Your task to perform on an android device: stop showing notifications on the lock screen Image 0: 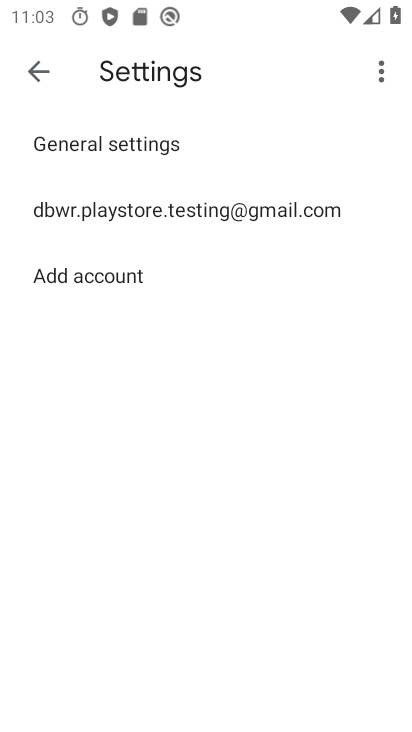
Step 0: press home button
Your task to perform on an android device: stop showing notifications on the lock screen Image 1: 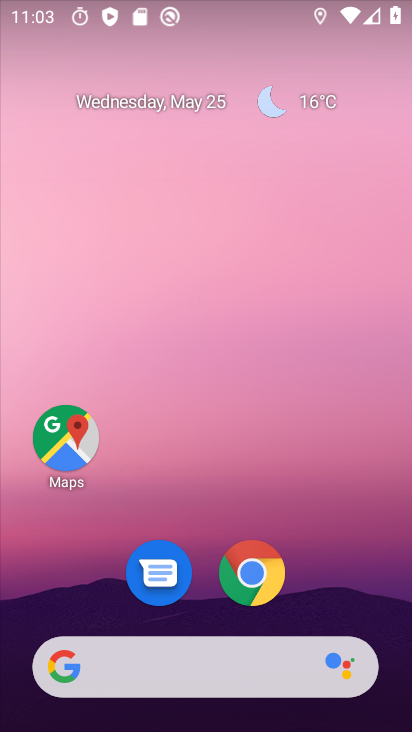
Step 1: drag from (358, 618) to (353, 16)
Your task to perform on an android device: stop showing notifications on the lock screen Image 2: 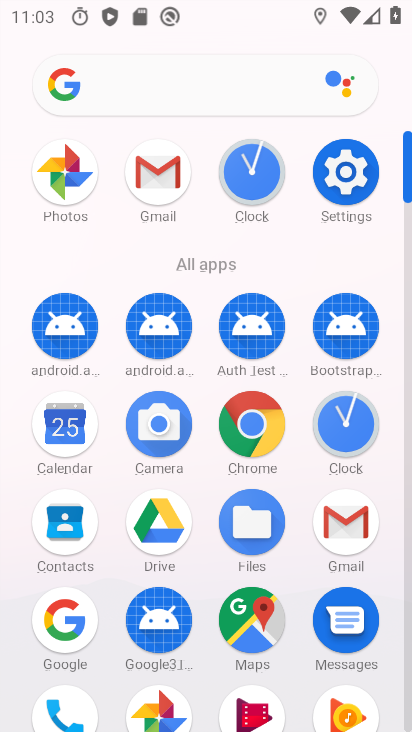
Step 2: click (345, 177)
Your task to perform on an android device: stop showing notifications on the lock screen Image 3: 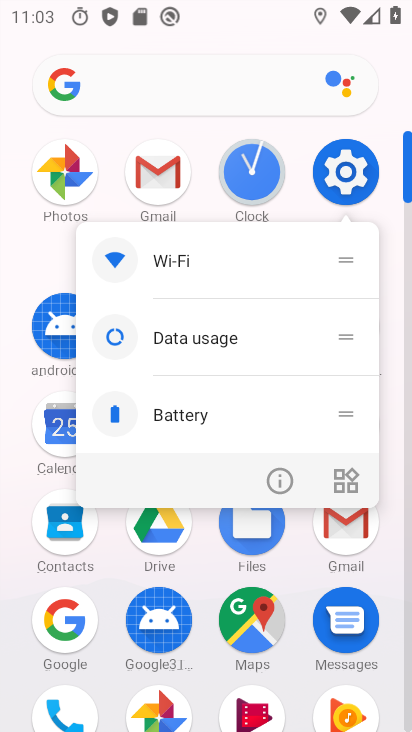
Step 3: click (345, 177)
Your task to perform on an android device: stop showing notifications on the lock screen Image 4: 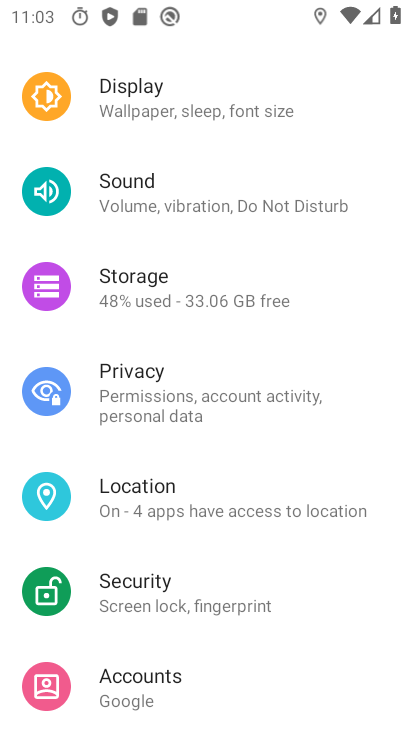
Step 4: drag from (327, 176) to (337, 595)
Your task to perform on an android device: stop showing notifications on the lock screen Image 5: 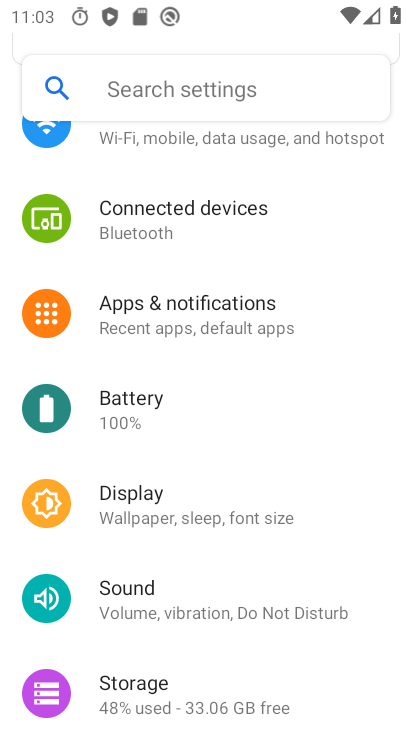
Step 5: click (185, 314)
Your task to perform on an android device: stop showing notifications on the lock screen Image 6: 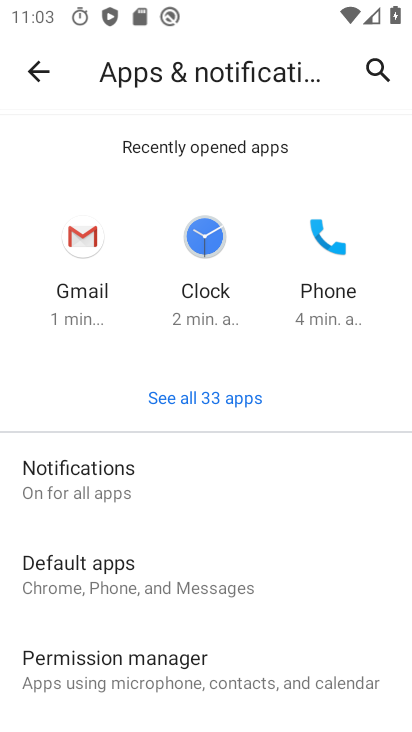
Step 6: click (82, 481)
Your task to perform on an android device: stop showing notifications on the lock screen Image 7: 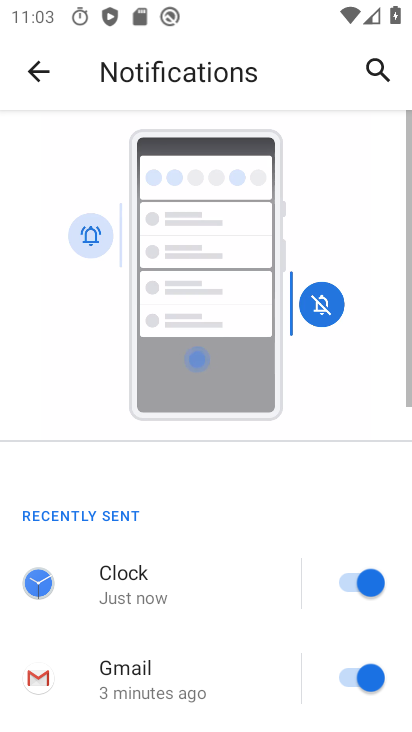
Step 7: drag from (216, 576) to (172, 125)
Your task to perform on an android device: stop showing notifications on the lock screen Image 8: 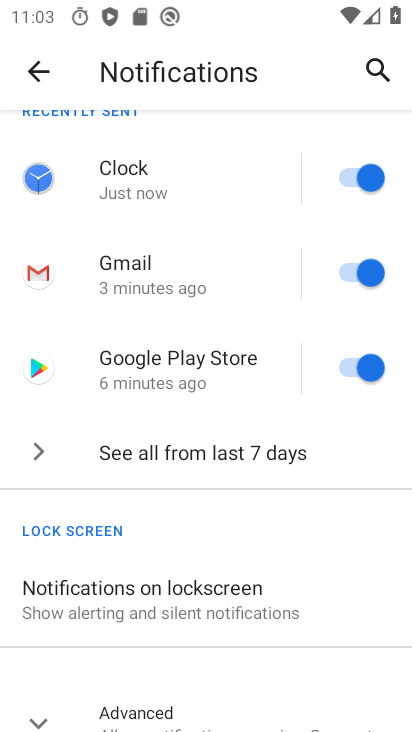
Step 8: click (126, 599)
Your task to perform on an android device: stop showing notifications on the lock screen Image 9: 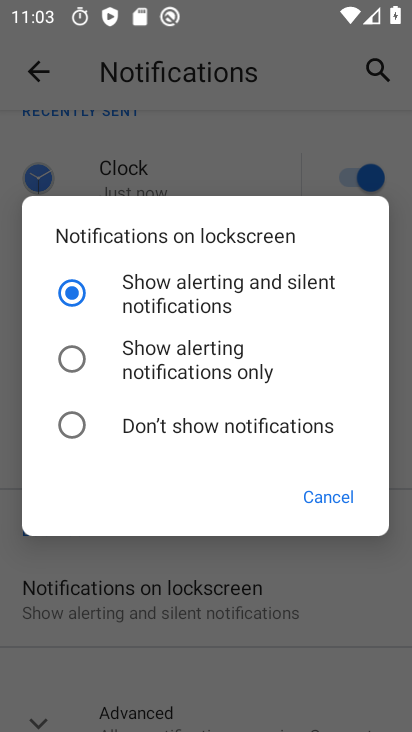
Step 9: click (78, 421)
Your task to perform on an android device: stop showing notifications on the lock screen Image 10: 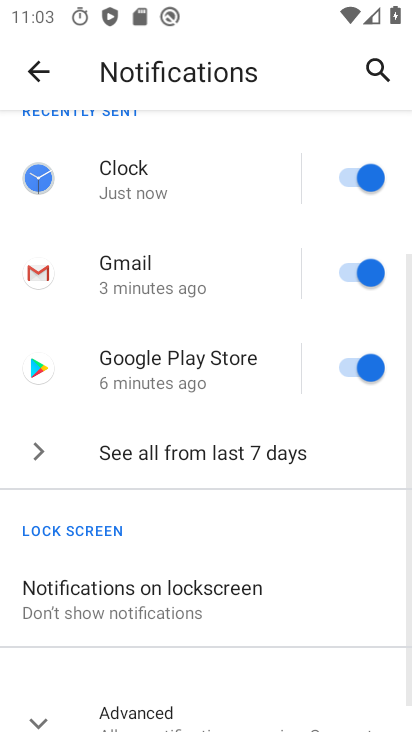
Step 10: task complete